Your task to perform on an android device: open a bookmark in the chrome app Image 0: 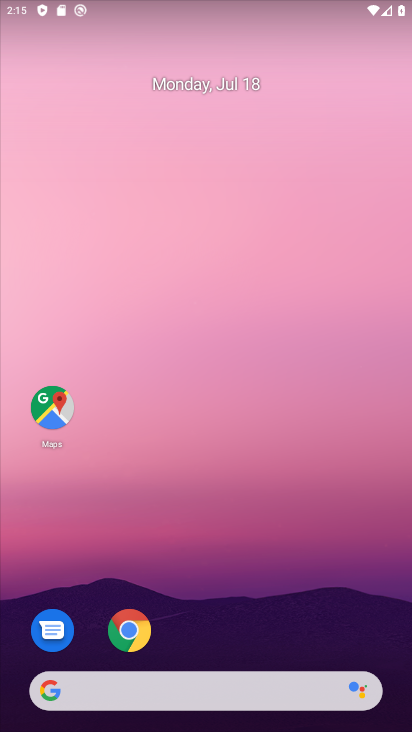
Step 0: drag from (346, 614) to (284, 303)
Your task to perform on an android device: open a bookmark in the chrome app Image 1: 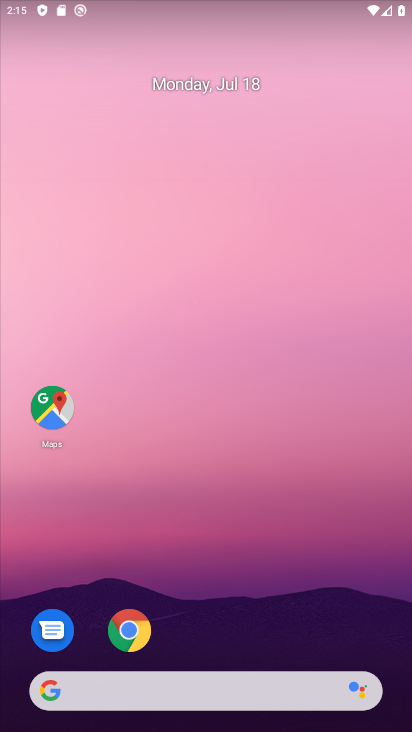
Step 1: drag from (391, 672) to (407, 708)
Your task to perform on an android device: open a bookmark in the chrome app Image 2: 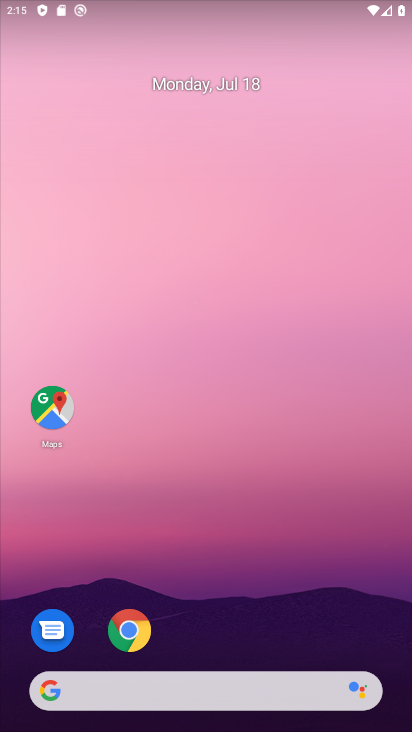
Step 2: drag from (299, 639) to (221, 10)
Your task to perform on an android device: open a bookmark in the chrome app Image 3: 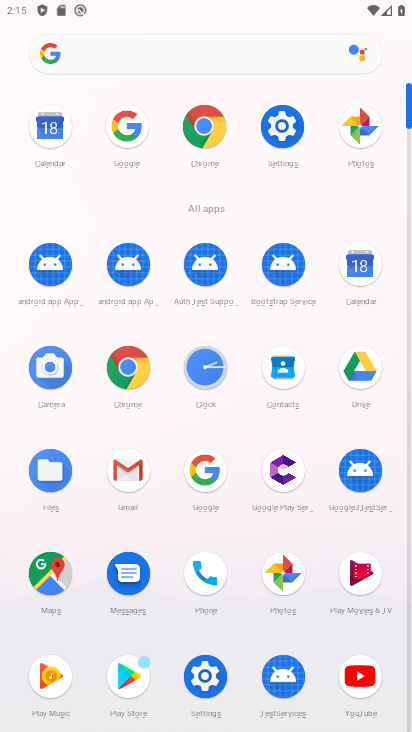
Step 3: click (189, 151)
Your task to perform on an android device: open a bookmark in the chrome app Image 4: 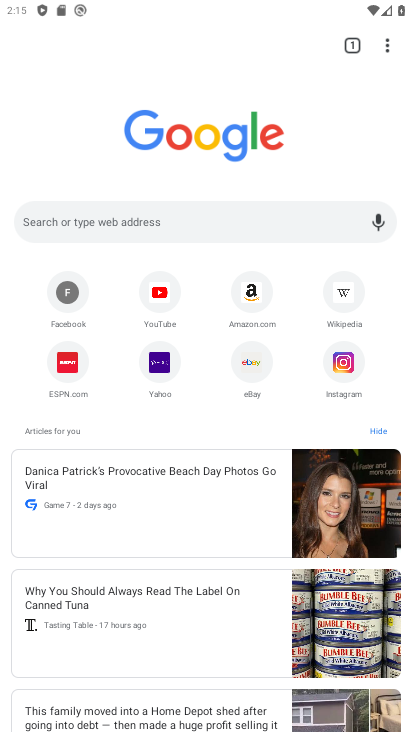
Step 4: click (384, 51)
Your task to perform on an android device: open a bookmark in the chrome app Image 5: 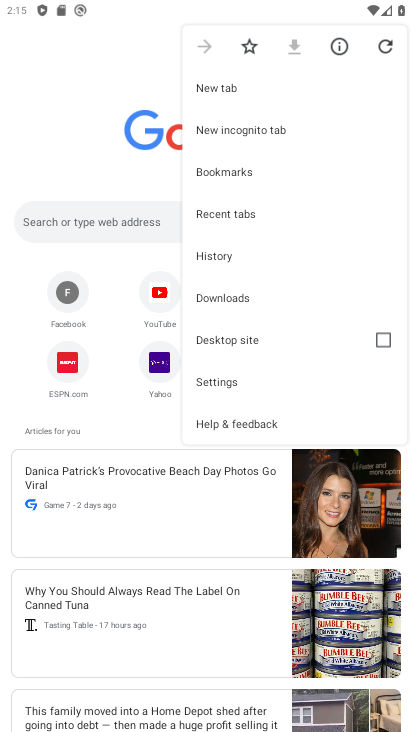
Step 5: click (230, 168)
Your task to perform on an android device: open a bookmark in the chrome app Image 6: 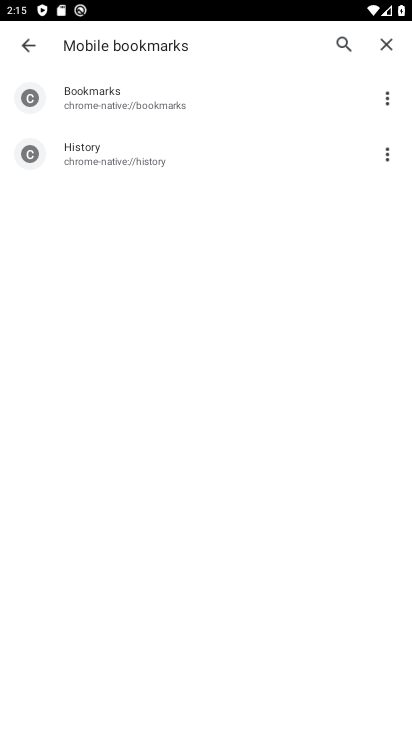
Step 6: task complete